Your task to perform on an android device: turn smart compose on in the gmail app Image 0: 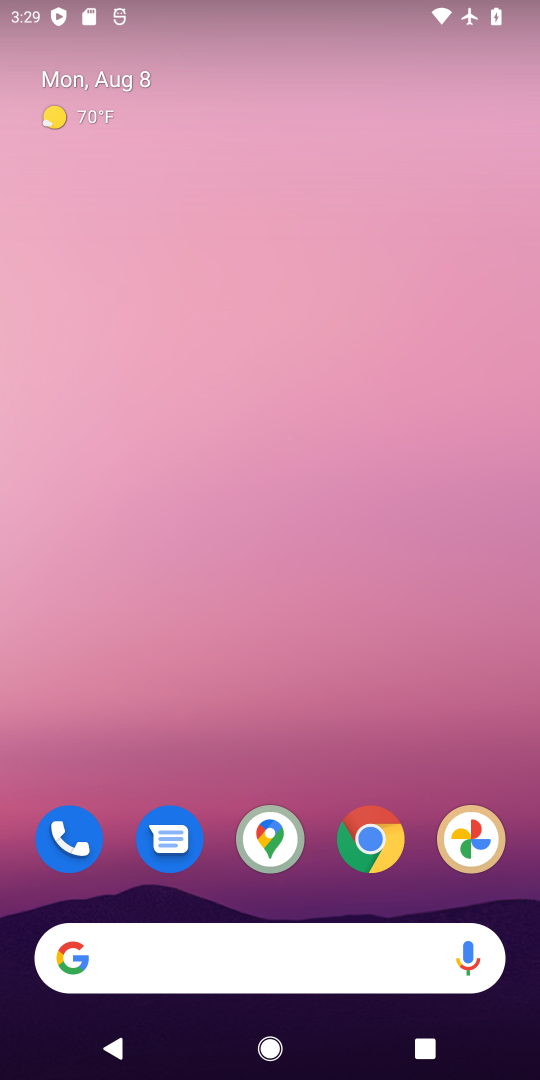
Step 0: press home button
Your task to perform on an android device: turn smart compose on in the gmail app Image 1: 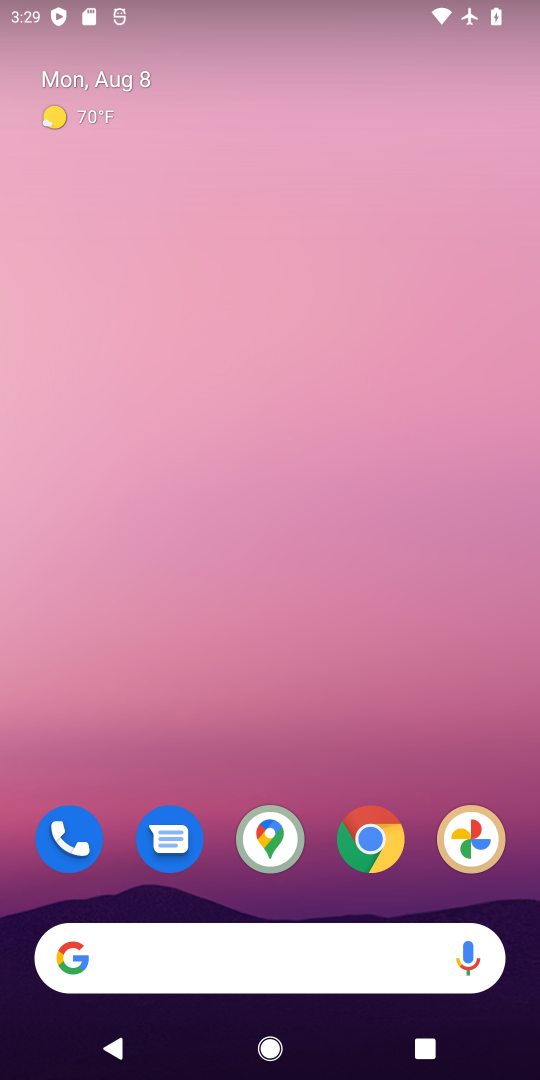
Step 1: drag from (410, 760) to (402, 262)
Your task to perform on an android device: turn smart compose on in the gmail app Image 2: 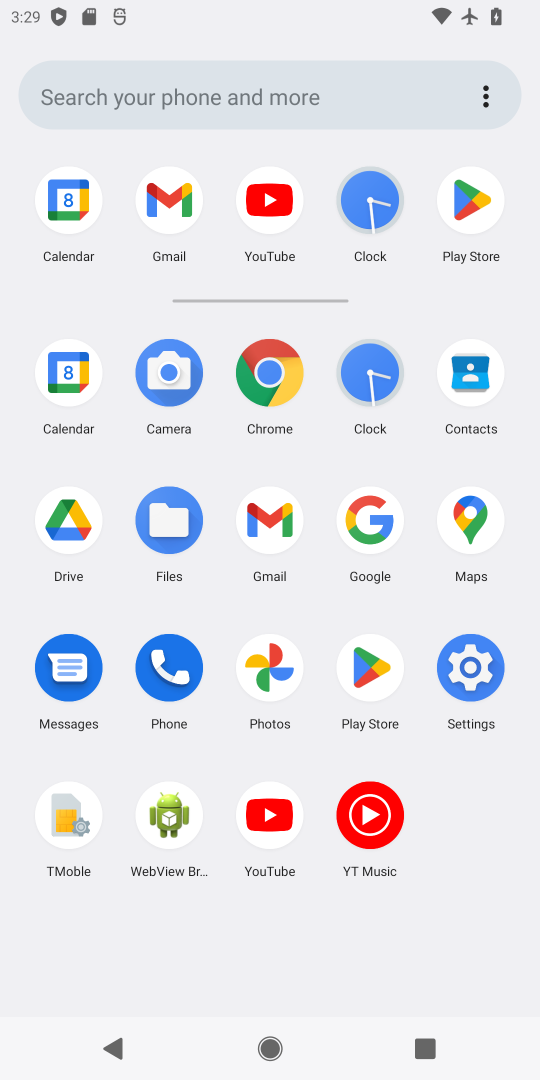
Step 2: click (268, 521)
Your task to perform on an android device: turn smart compose on in the gmail app Image 3: 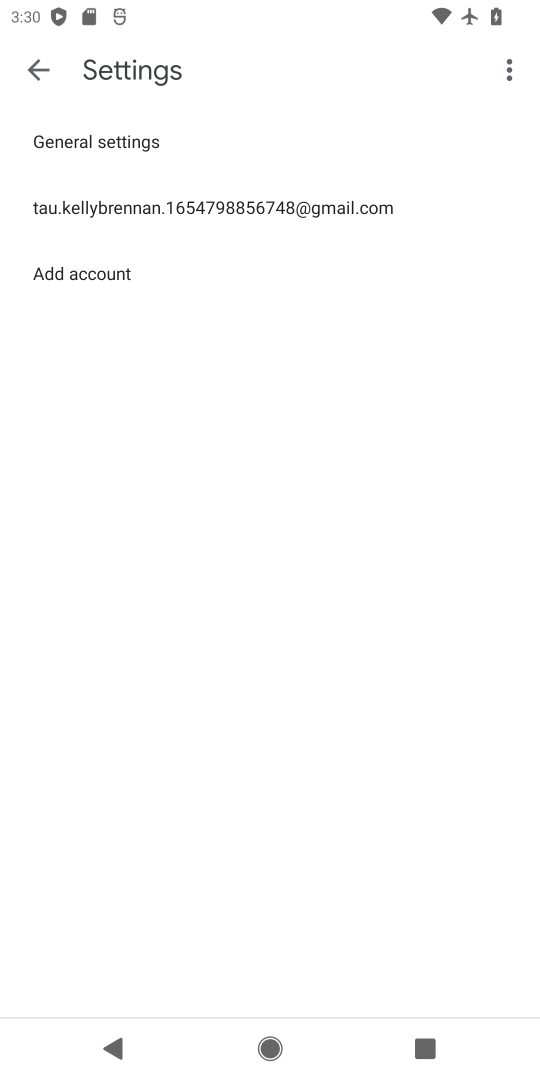
Step 3: click (203, 214)
Your task to perform on an android device: turn smart compose on in the gmail app Image 4: 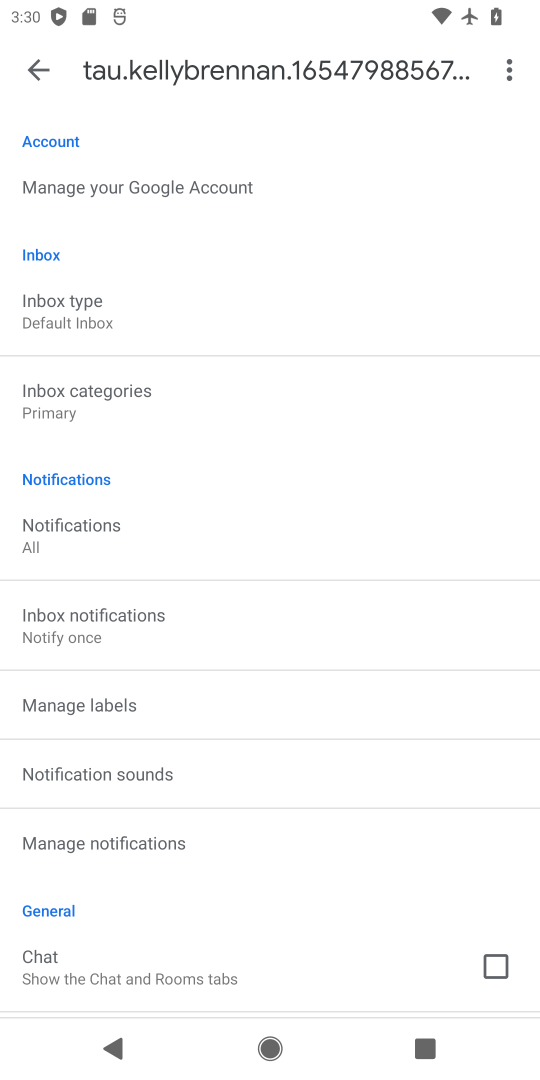
Step 4: task complete